Your task to perform on an android device: turn off picture-in-picture Image 0: 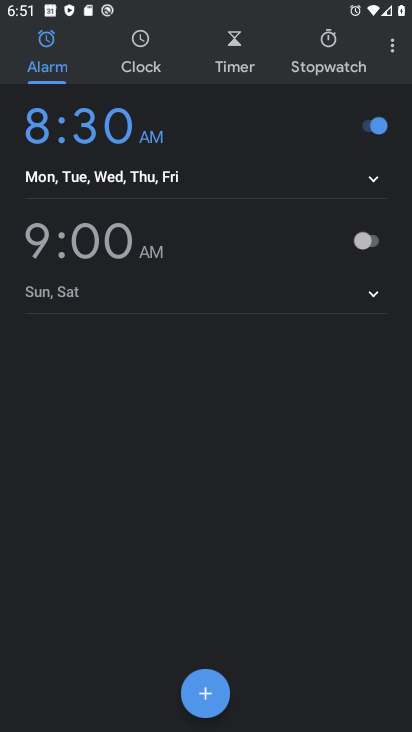
Step 0: press home button
Your task to perform on an android device: turn off picture-in-picture Image 1: 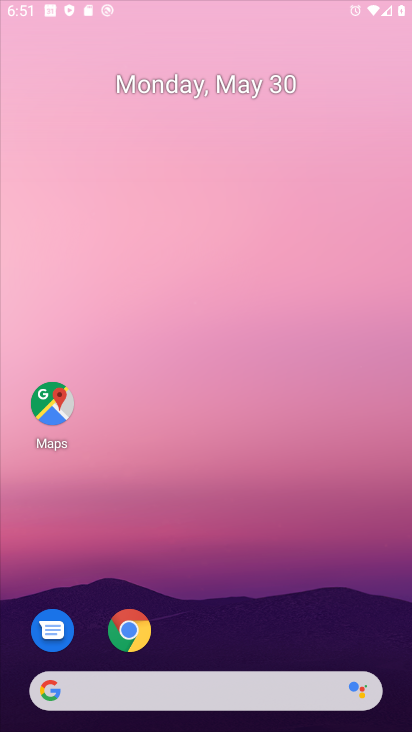
Step 1: drag from (350, 627) to (300, 7)
Your task to perform on an android device: turn off picture-in-picture Image 2: 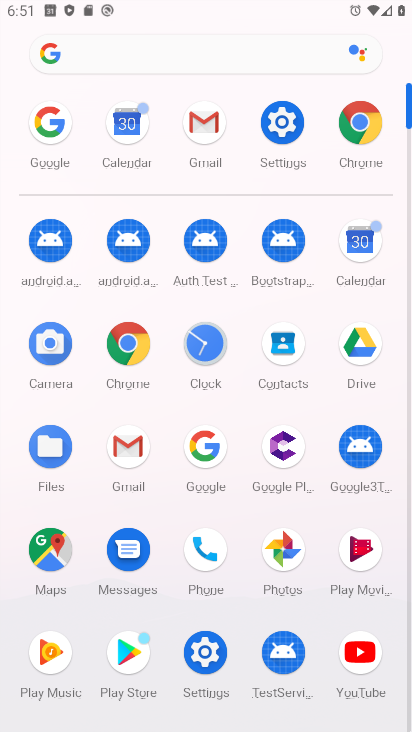
Step 2: click (140, 345)
Your task to perform on an android device: turn off picture-in-picture Image 3: 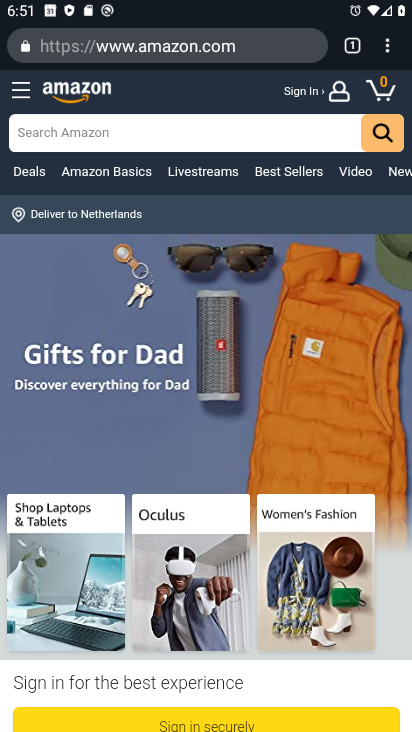
Step 3: task complete